Your task to perform on an android device: Play the last video I watched on Youtube Image 0: 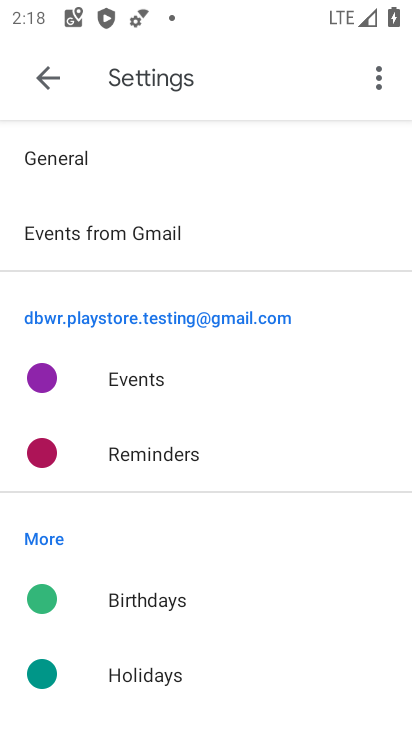
Step 0: press back button
Your task to perform on an android device: Play the last video I watched on Youtube Image 1: 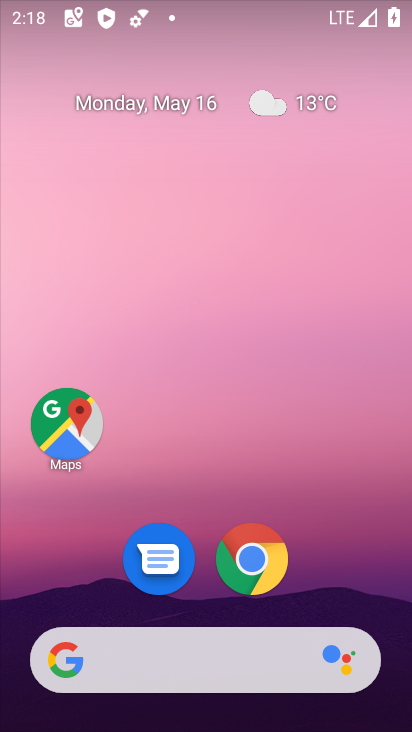
Step 1: drag from (231, 586) to (237, 114)
Your task to perform on an android device: Play the last video I watched on Youtube Image 2: 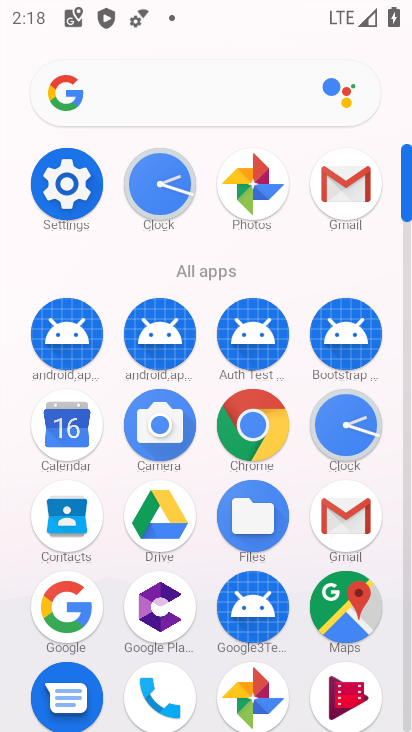
Step 2: drag from (188, 609) to (261, 101)
Your task to perform on an android device: Play the last video I watched on Youtube Image 3: 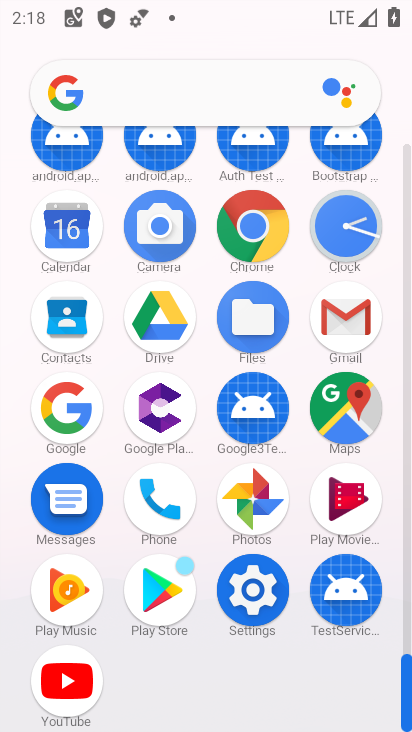
Step 3: click (63, 672)
Your task to perform on an android device: Play the last video I watched on Youtube Image 4: 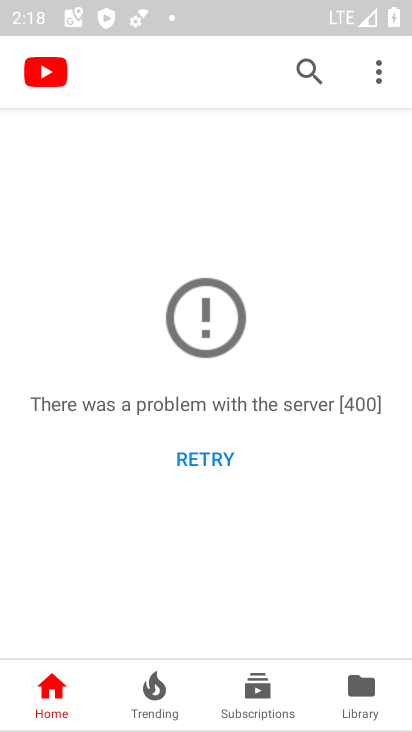
Step 4: click (343, 695)
Your task to perform on an android device: Play the last video I watched on Youtube Image 5: 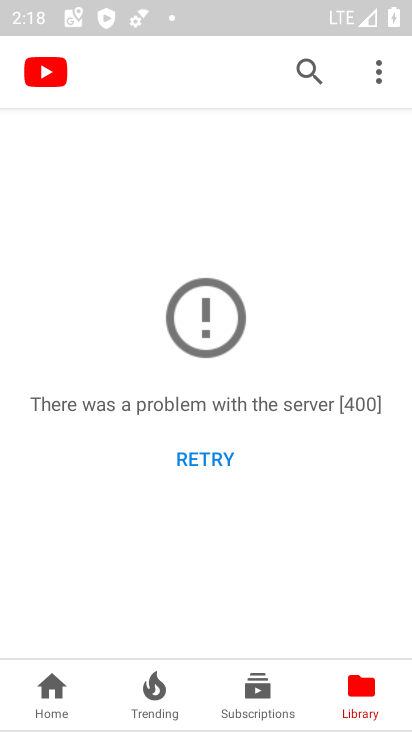
Step 5: task complete